Your task to perform on an android device: How much does a 3 bedroom apartment rent for in Los Angeles? Image 0: 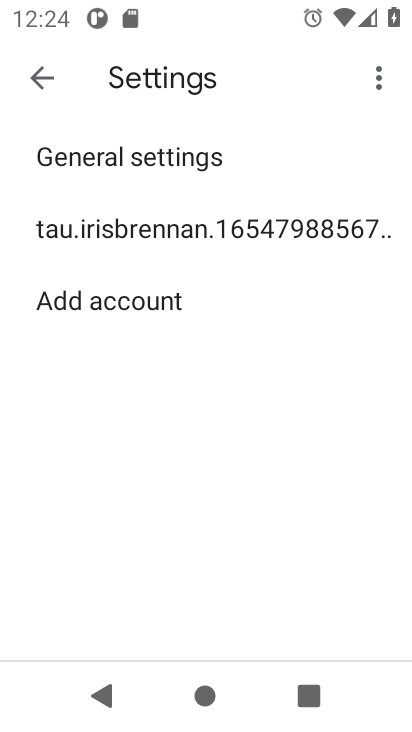
Step 0: press home button
Your task to perform on an android device: How much does a 3 bedroom apartment rent for in Los Angeles? Image 1: 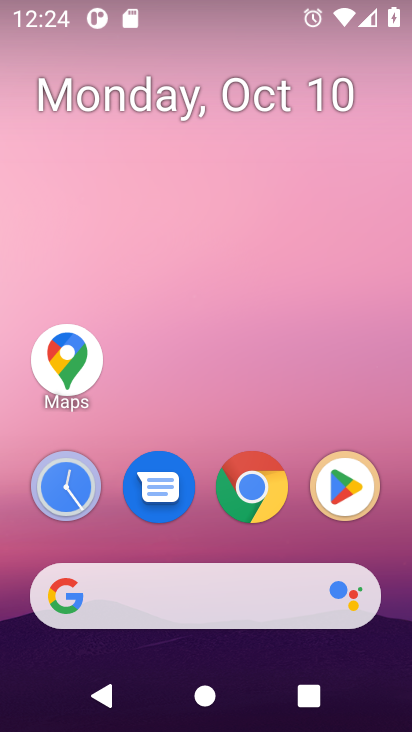
Step 1: drag from (215, 562) to (184, 7)
Your task to perform on an android device: How much does a 3 bedroom apartment rent for in Los Angeles? Image 2: 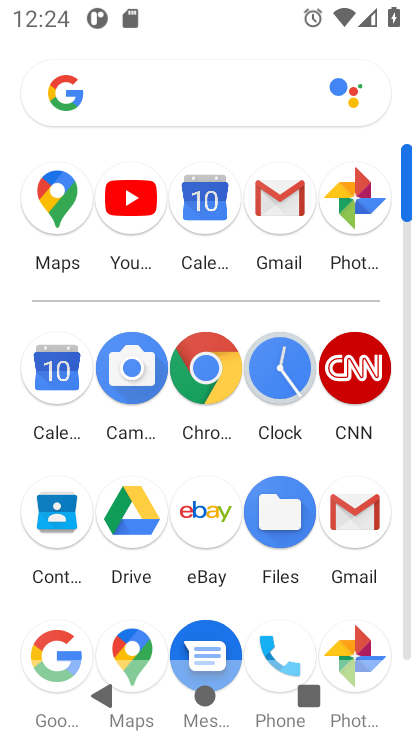
Step 2: click (206, 375)
Your task to perform on an android device: How much does a 3 bedroom apartment rent for in Los Angeles? Image 3: 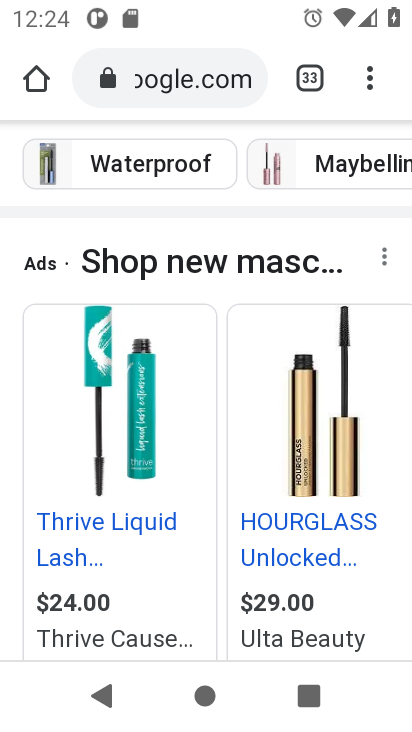
Step 3: drag from (103, 173) to (135, 529)
Your task to perform on an android device: How much does a 3 bedroom apartment rent for in Los Angeles? Image 4: 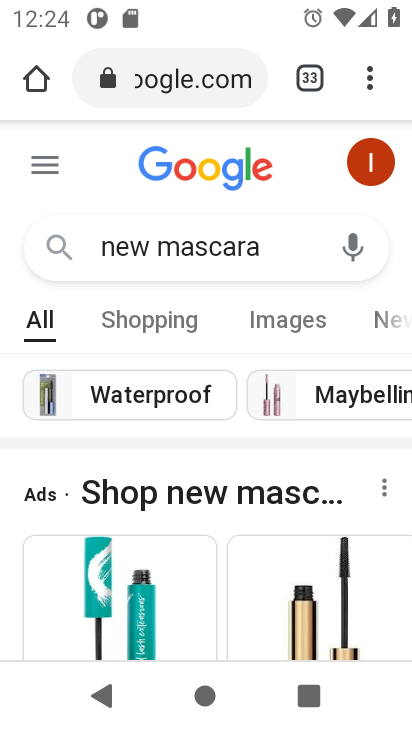
Step 4: click (268, 256)
Your task to perform on an android device: How much does a 3 bedroom apartment rent for in Los Angeles? Image 5: 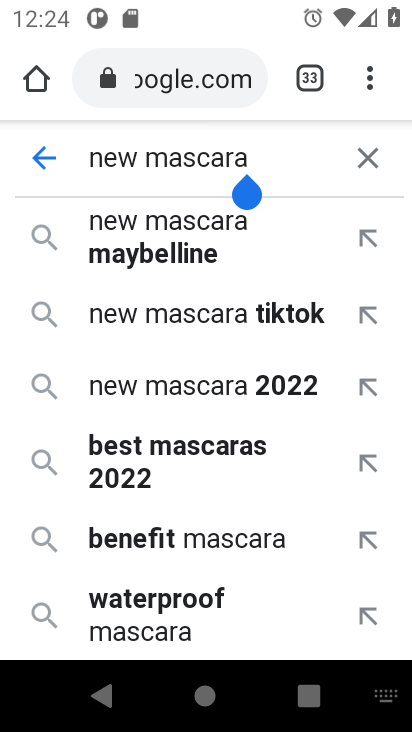
Step 5: click (371, 149)
Your task to perform on an android device: How much does a 3 bedroom apartment rent for in Los Angeles? Image 6: 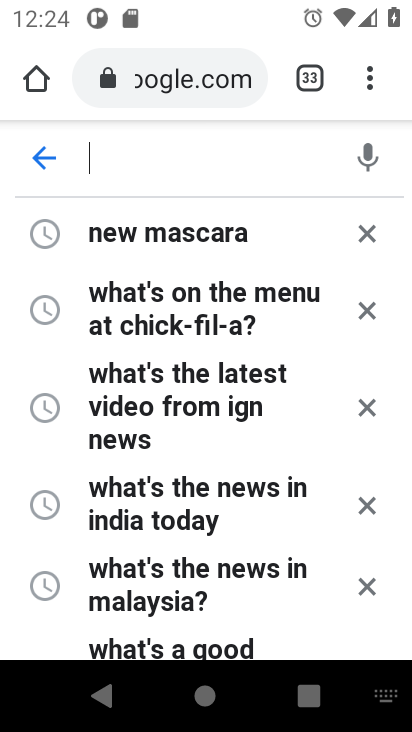
Step 6: drag from (411, 722) to (372, 723)
Your task to perform on an android device: How much does a 3 bedroom apartment rent for in Los Angeles? Image 7: 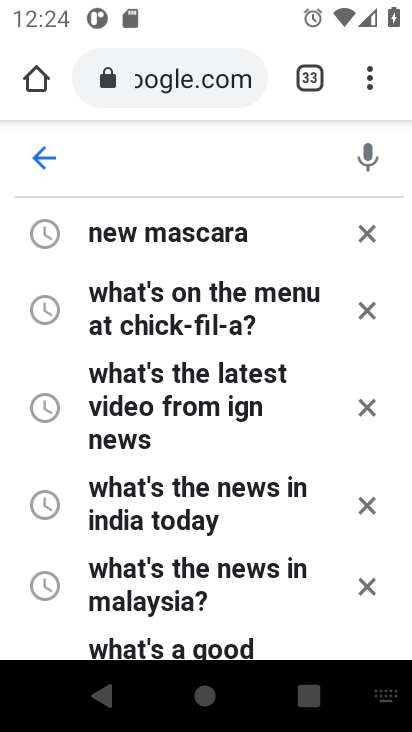
Step 7: type "How much does a 3 bedroom apartment rent for in Los Angeles?"
Your task to perform on an android device: How much does a 3 bedroom apartment rent for in Los Angeles? Image 8: 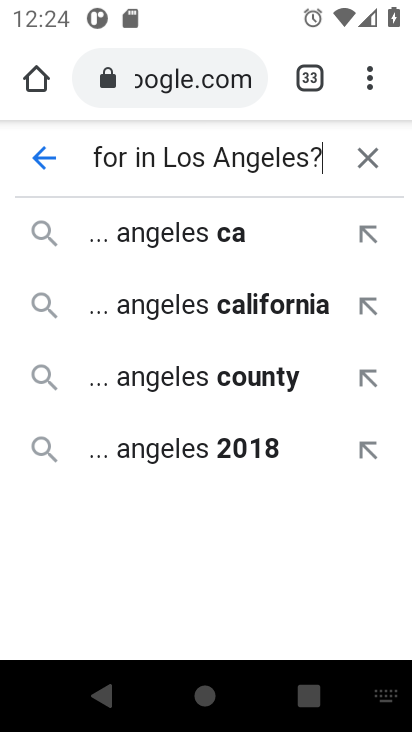
Step 8: type ""
Your task to perform on an android device: How much does a 3 bedroom apartment rent for in Los Angeles? Image 9: 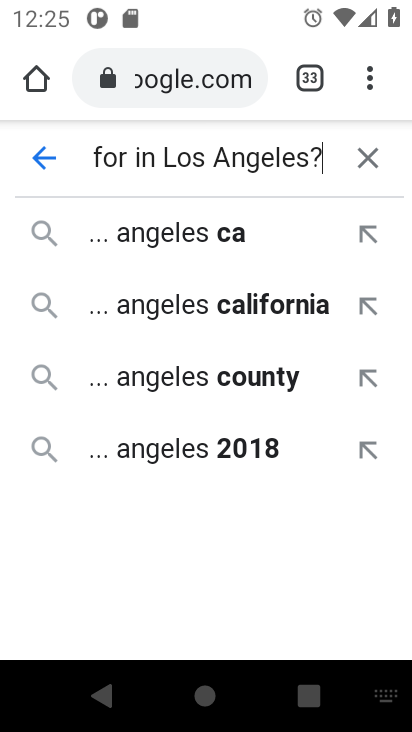
Step 9: click (258, 384)
Your task to perform on an android device: How much does a 3 bedroom apartment rent for in Los Angeles? Image 10: 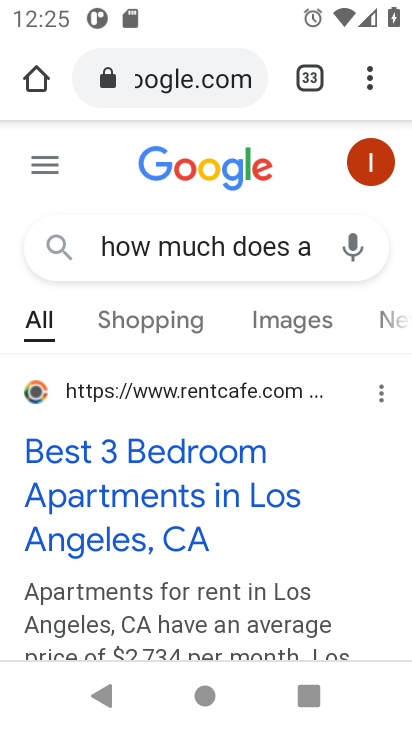
Step 10: drag from (139, 606) to (125, 390)
Your task to perform on an android device: How much does a 3 bedroom apartment rent for in Los Angeles? Image 11: 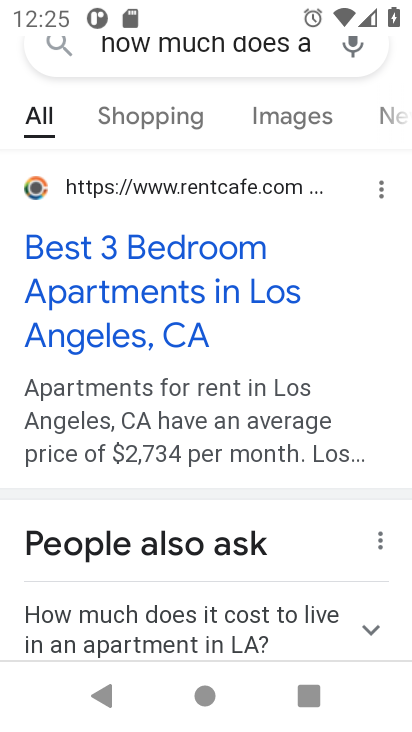
Step 11: drag from (167, 579) to (152, 252)
Your task to perform on an android device: How much does a 3 bedroom apartment rent for in Los Angeles? Image 12: 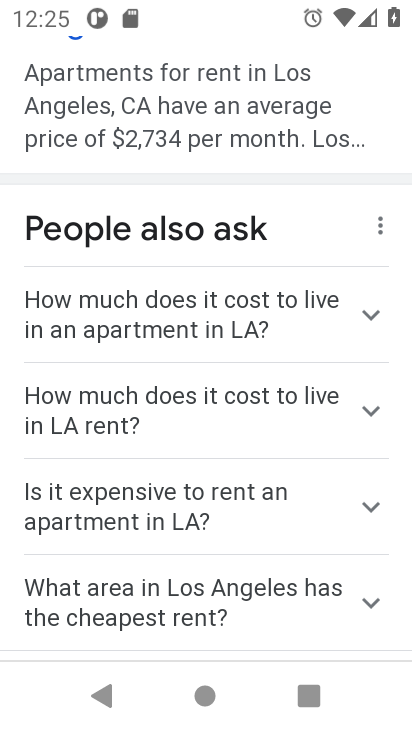
Step 12: click (218, 308)
Your task to perform on an android device: How much does a 3 bedroom apartment rent for in Los Angeles? Image 13: 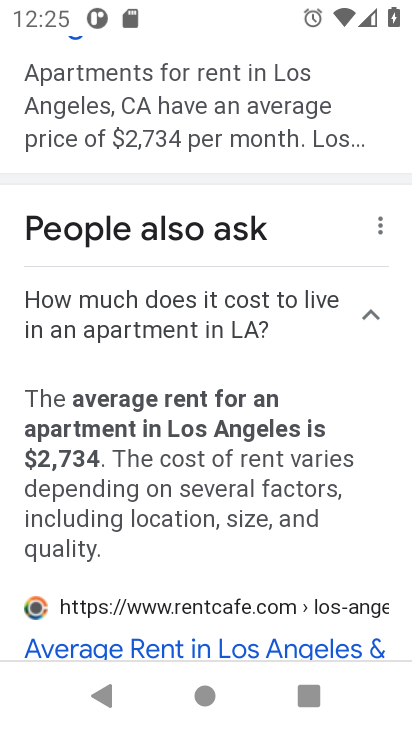
Step 13: task complete